Your task to perform on an android device: open the mobile data screen to see how much data has been used Image 0: 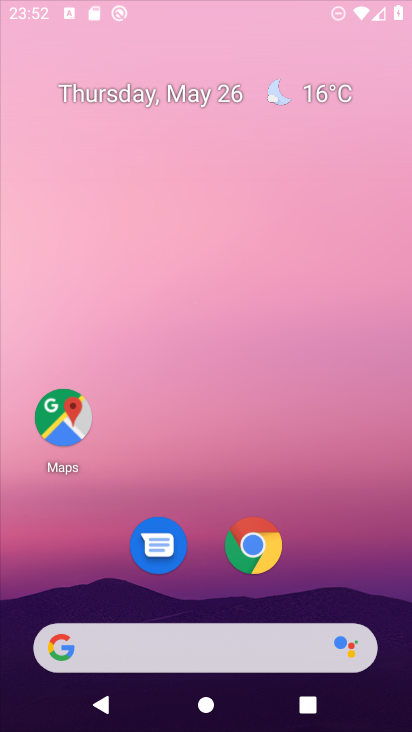
Step 0: press home button
Your task to perform on an android device: open the mobile data screen to see how much data has been used Image 1: 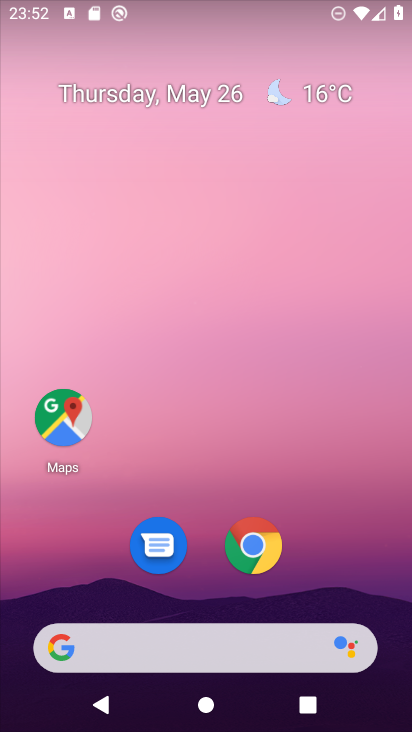
Step 1: drag from (275, 606) to (248, 203)
Your task to perform on an android device: open the mobile data screen to see how much data has been used Image 2: 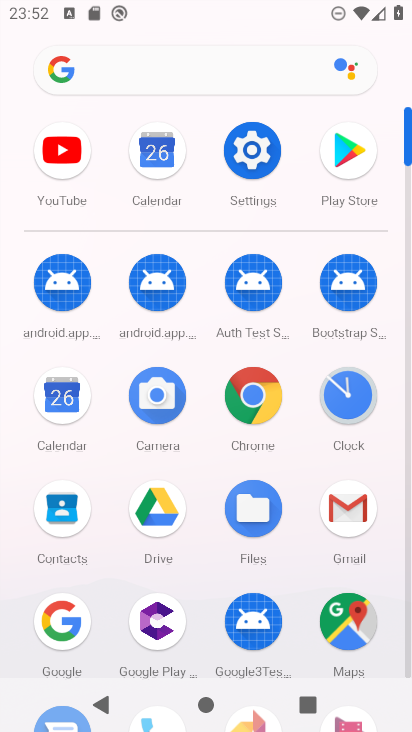
Step 2: click (244, 170)
Your task to perform on an android device: open the mobile data screen to see how much data has been used Image 3: 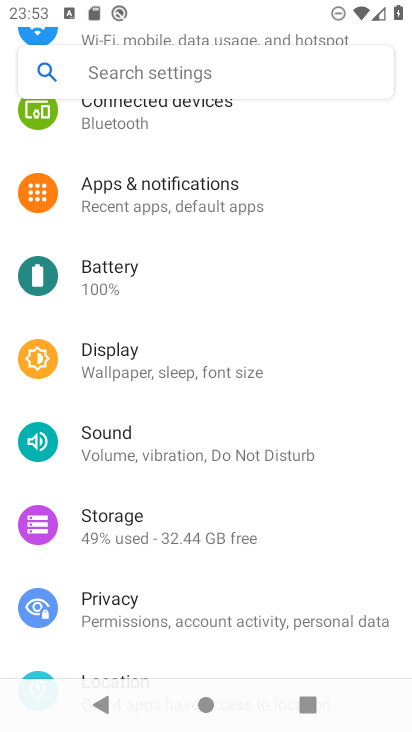
Step 3: drag from (326, 141) to (330, 531)
Your task to perform on an android device: open the mobile data screen to see how much data has been used Image 4: 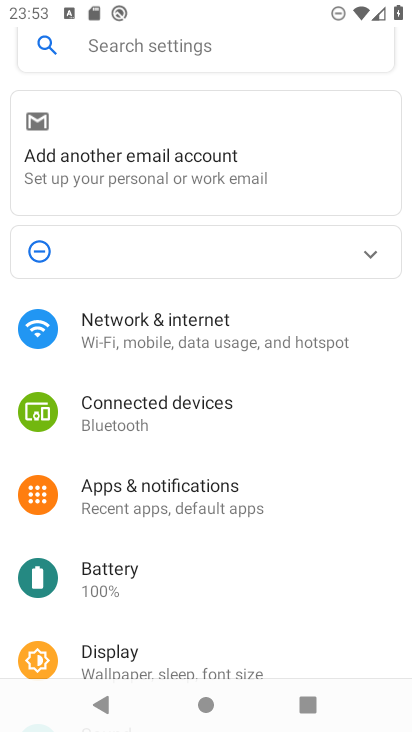
Step 4: click (142, 339)
Your task to perform on an android device: open the mobile data screen to see how much data has been used Image 5: 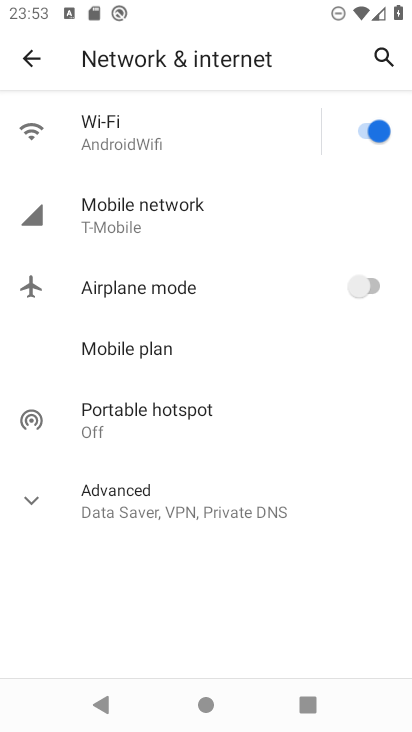
Step 5: click (127, 216)
Your task to perform on an android device: open the mobile data screen to see how much data has been used Image 6: 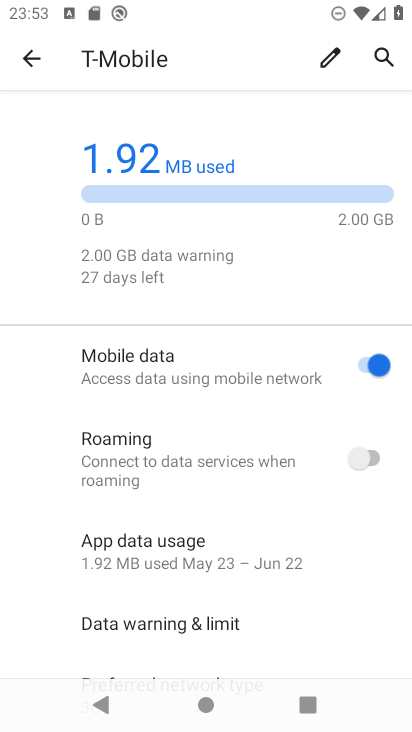
Step 6: click (147, 555)
Your task to perform on an android device: open the mobile data screen to see how much data has been used Image 7: 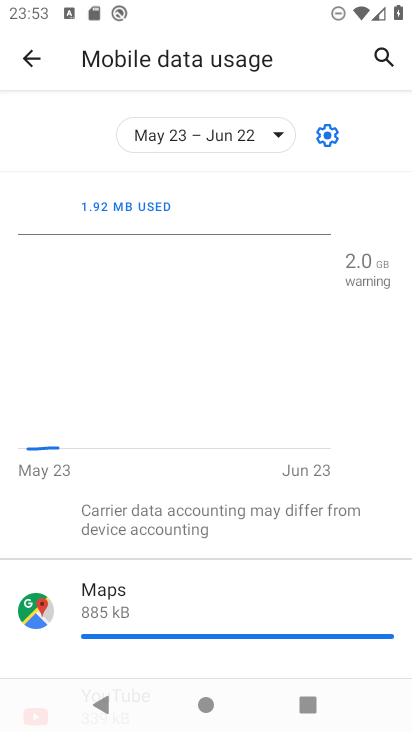
Step 7: task complete